Your task to perform on an android device: open app "Chime – Mobile Banking" Image 0: 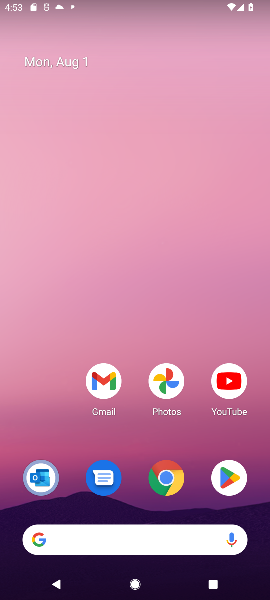
Step 0: click (235, 485)
Your task to perform on an android device: open app "Chime – Mobile Banking" Image 1: 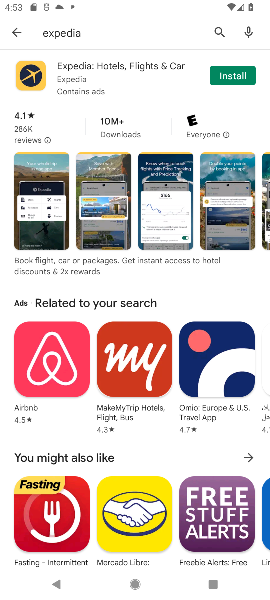
Step 1: click (217, 29)
Your task to perform on an android device: open app "Chime – Mobile Banking" Image 2: 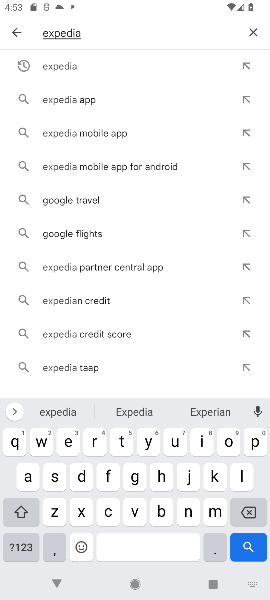
Step 2: click (251, 25)
Your task to perform on an android device: open app "Chime – Mobile Banking" Image 3: 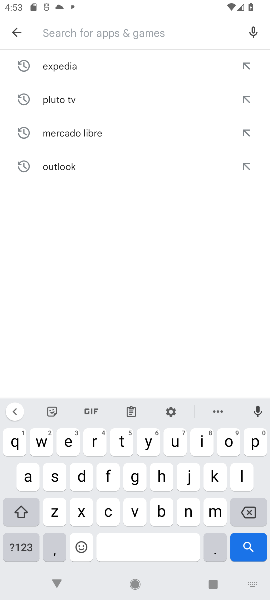
Step 3: click (106, 513)
Your task to perform on an android device: open app "Chime – Mobile Banking" Image 4: 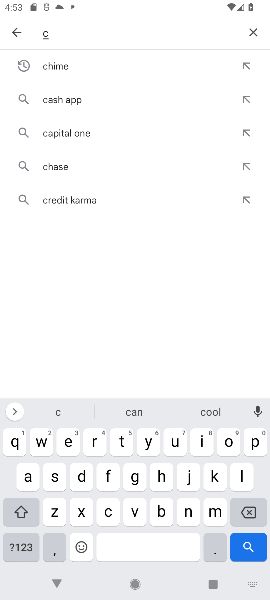
Step 4: click (163, 480)
Your task to perform on an android device: open app "Chime – Mobile Banking" Image 5: 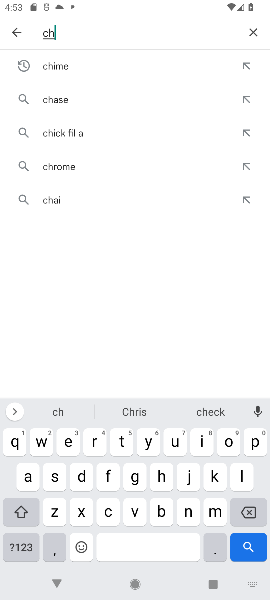
Step 5: click (78, 60)
Your task to perform on an android device: open app "Chime – Mobile Banking" Image 6: 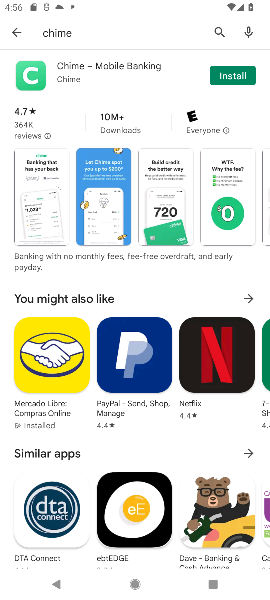
Step 6: task complete